Your task to perform on an android device: Search for "usb-a to usb-b" on amazon.com, select the first entry, add it to the cart, then select checkout. Image 0: 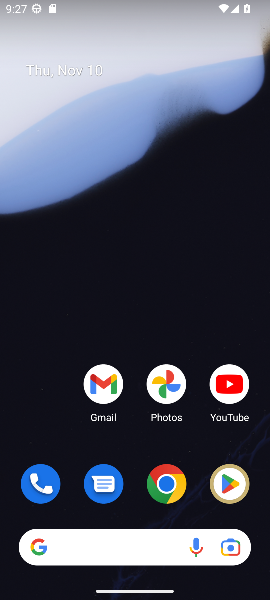
Step 0: click (163, 486)
Your task to perform on an android device: Search for "usb-a to usb-b" on amazon.com, select the first entry, add it to the cart, then select checkout. Image 1: 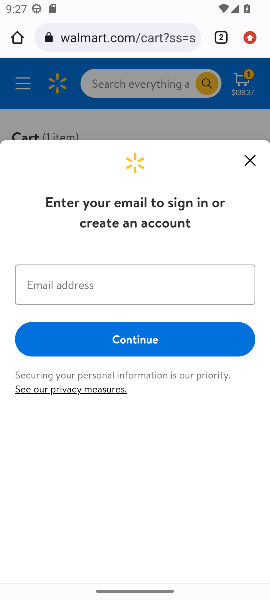
Step 1: click (105, 38)
Your task to perform on an android device: Search for "usb-a to usb-b" on amazon.com, select the first entry, add it to the cart, then select checkout. Image 2: 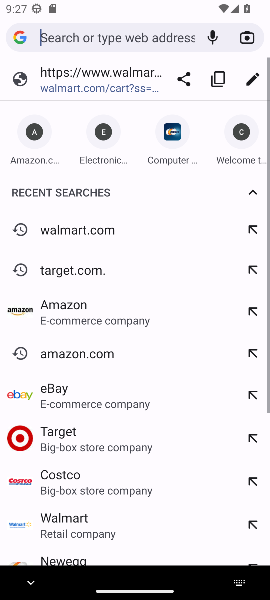
Step 2: click (31, 144)
Your task to perform on an android device: Search for "usb-a to usb-b" on amazon.com, select the first entry, add it to the cart, then select checkout. Image 3: 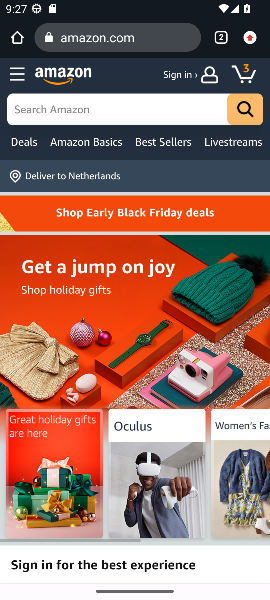
Step 3: click (38, 115)
Your task to perform on an android device: Search for "usb-a to usb-b" on amazon.com, select the first entry, add it to the cart, then select checkout. Image 4: 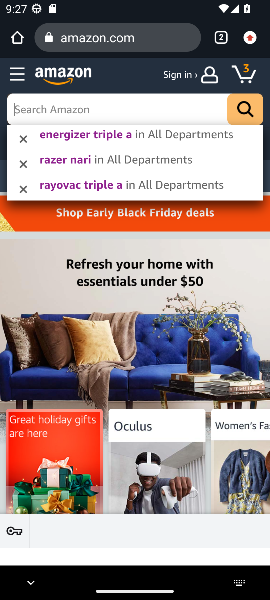
Step 4: type "usb-a to usb-b"
Your task to perform on an android device: Search for "usb-a to usb-b" on amazon.com, select the first entry, add it to the cart, then select checkout. Image 5: 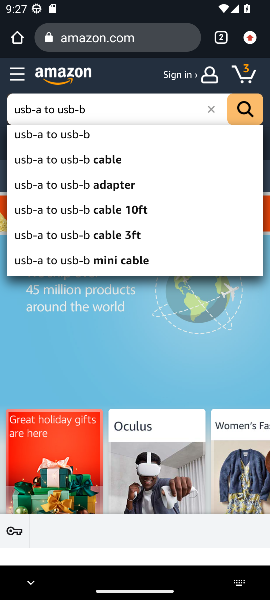
Step 5: click (50, 139)
Your task to perform on an android device: Search for "usb-a to usb-b" on amazon.com, select the first entry, add it to the cart, then select checkout. Image 6: 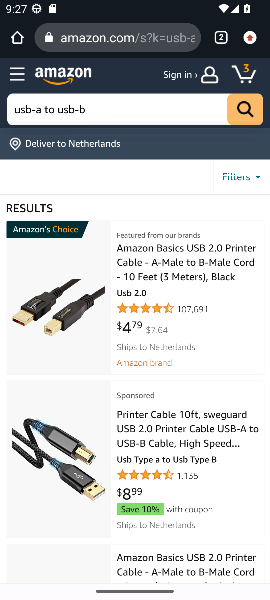
Step 6: click (57, 312)
Your task to perform on an android device: Search for "usb-a to usb-b" on amazon.com, select the first entry, add it to the cart, then select checkout. Image 7: 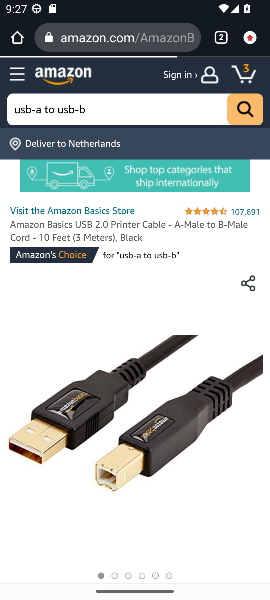
Step 7: drag from (104, 423) to (107, 136)
Your task to perform on an android device: Search for "usb-a to usb-b" on amazon.com, select the first entry, add it to the cart, then select checkout. Image 8: 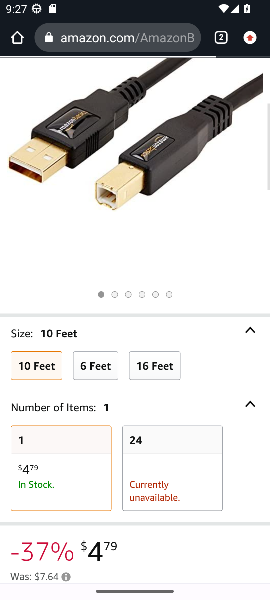
Step 8: drag from (124, 416) to (127, 239)
Your task to perform on an android device: Search for "usb-a to usb-b" on amazon.com, select the first entry, add it to the cart, then select checkout. Image 9: 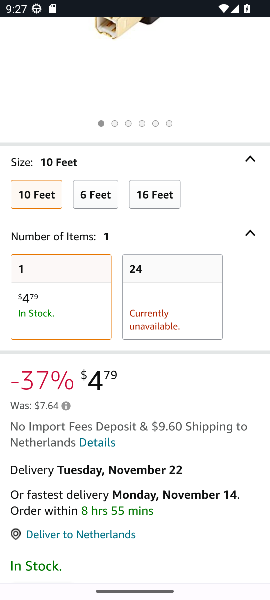
Step 9: drag from (116, 455) to (110, 247)
Your task to perform on an android device: Search for "usb-a to usb-b" on amazon.com, select the first entry, add it to the cart, then select checkout. Image 10: 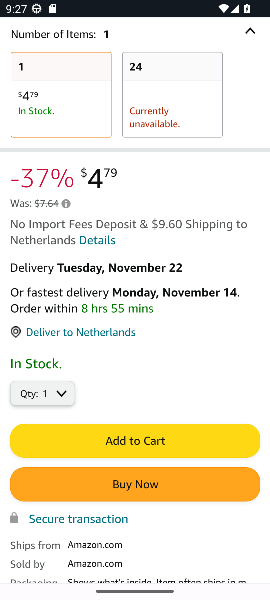
Step 10: click (116, 430)
Your task to perform on an android device: Search for "usb-a to usb-b" on amazon.com, select the first entry, add it to the cart, then select checkout. Image 11: 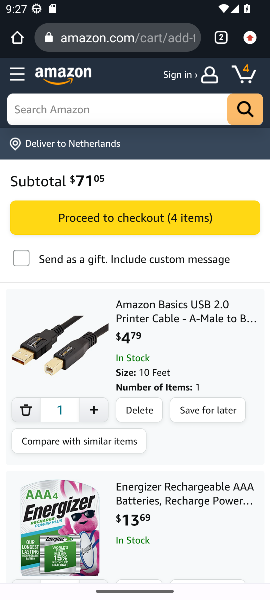
Step 11: click (121, 225)
Your task to perform on an android device: Search for "usb-a to usb-b" on amazon.com, select the first entry, add it to the cart, then select checkout. Image 12: 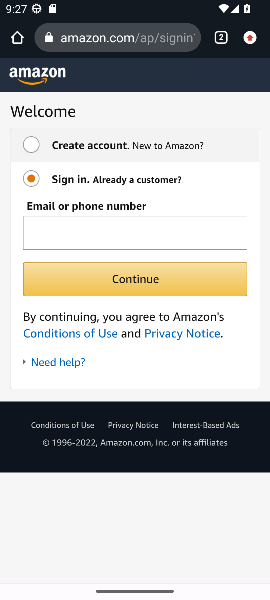
Step 12: task complete